Your task to perform on an android device: Open privacy settings Image 0: 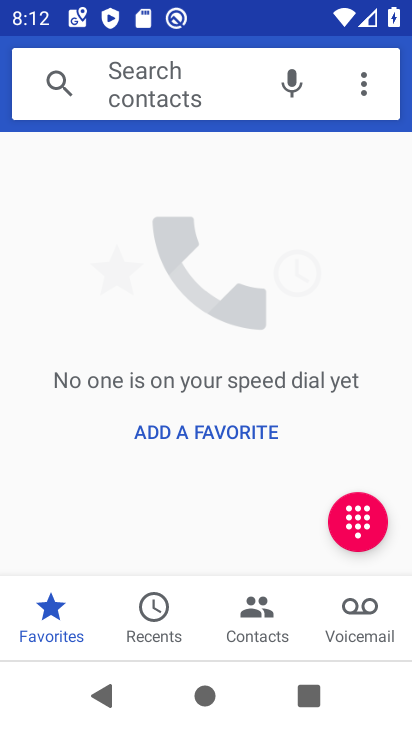
Step 0: press home button
Your task to perform on an android device: Open privacy settings Image 1: 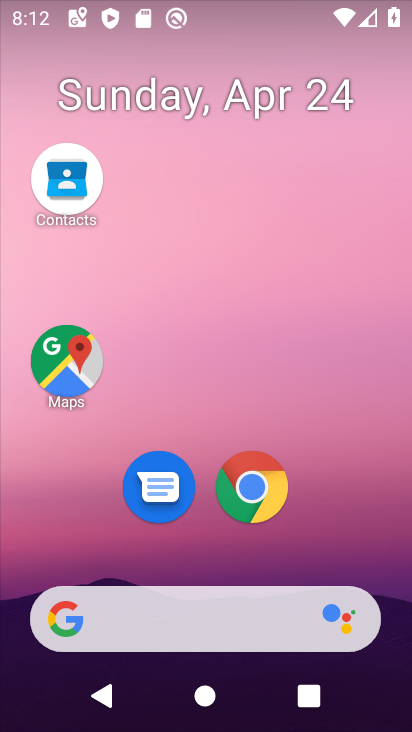
Step 1: drag from (213, 555) to (182, 115)
Your task to perform on an android device: Open privacy settings Image 2: 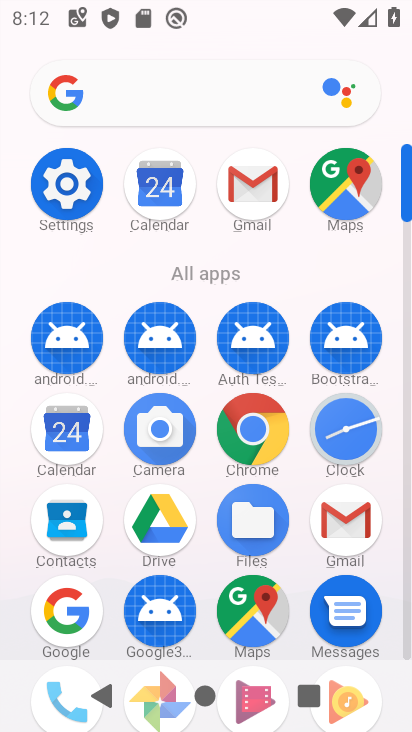
Step 2: click (81, 182)
Your task to perform on an android device: Open privacy settings Image 3: 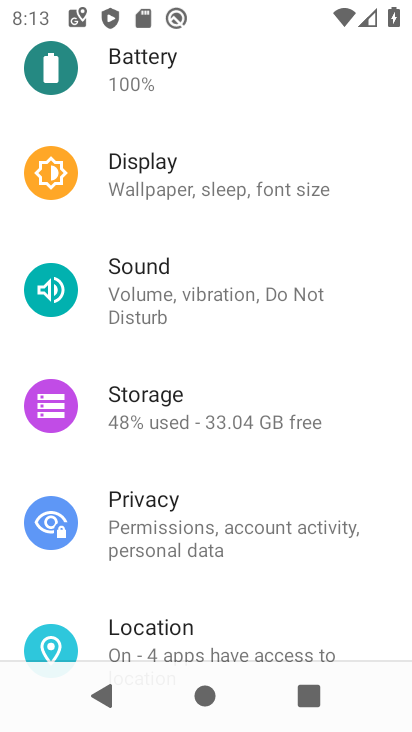
Step 3: click (118, 496)
Your task to perform on an android device: Open privacy settings Image 4: 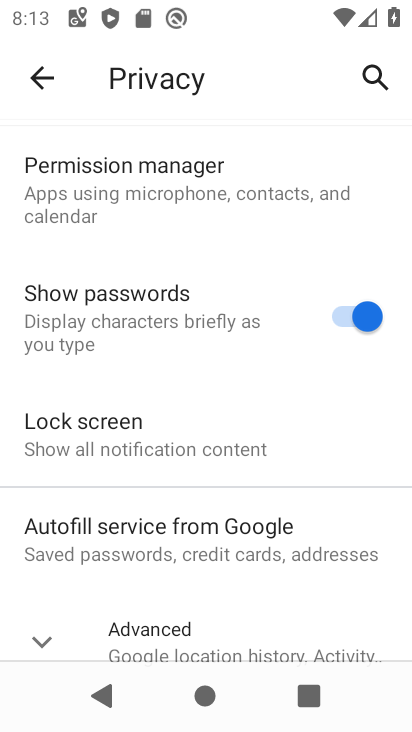
Step 4: task complete